Your task to perform on an android device: turn notification dots off Image 0: 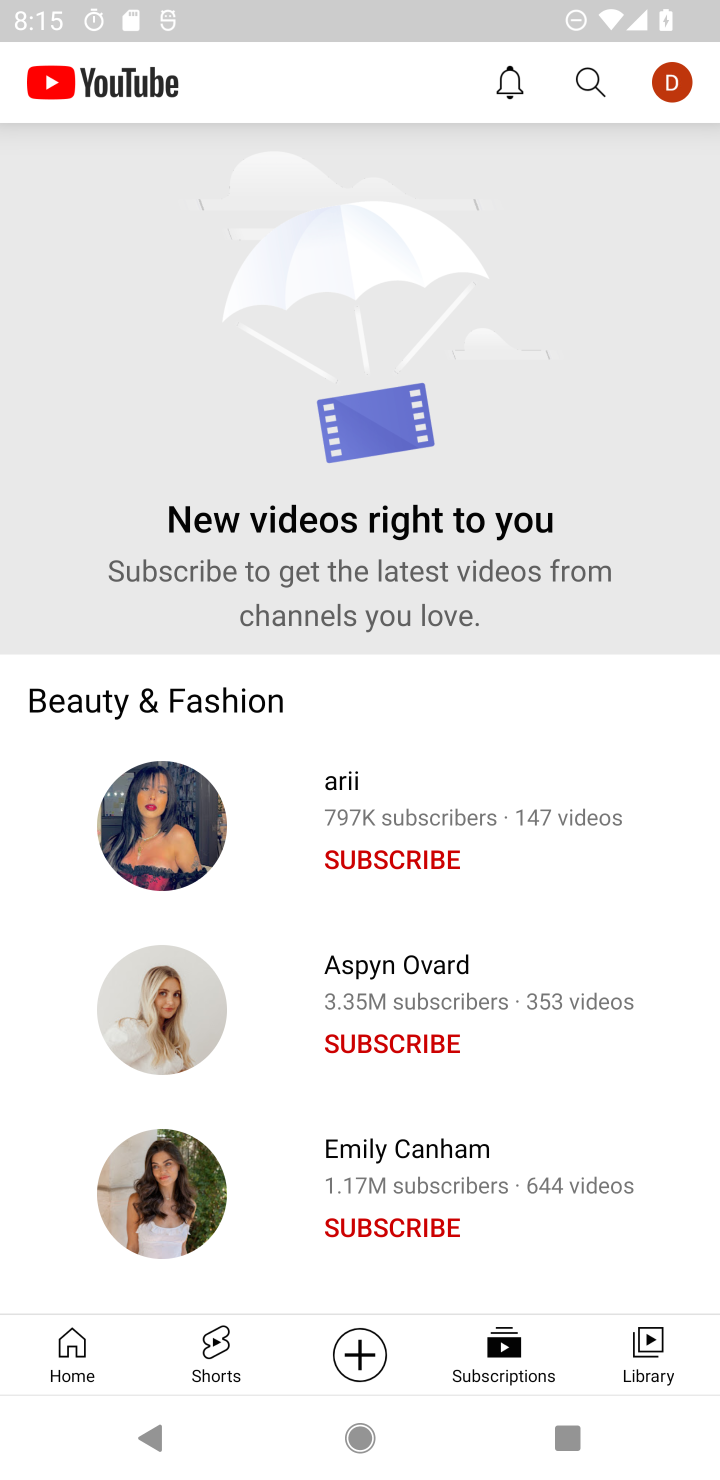
Step 0: press home button
Your task to perform on an android device: turn notification dots off Image 1: 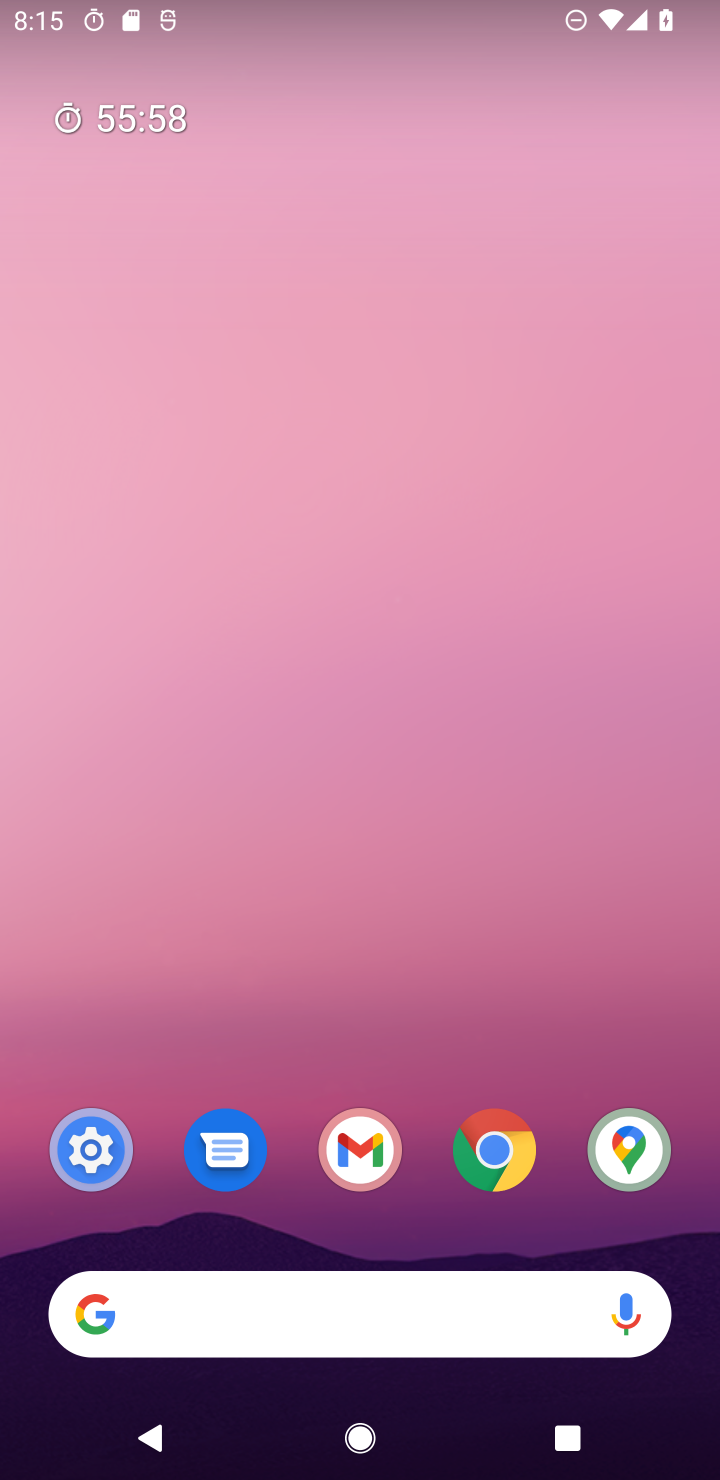
Step 1: drag from (430, 992) to (703, 11)
Your task to perform on an android device: turn notification dots off Image 2: 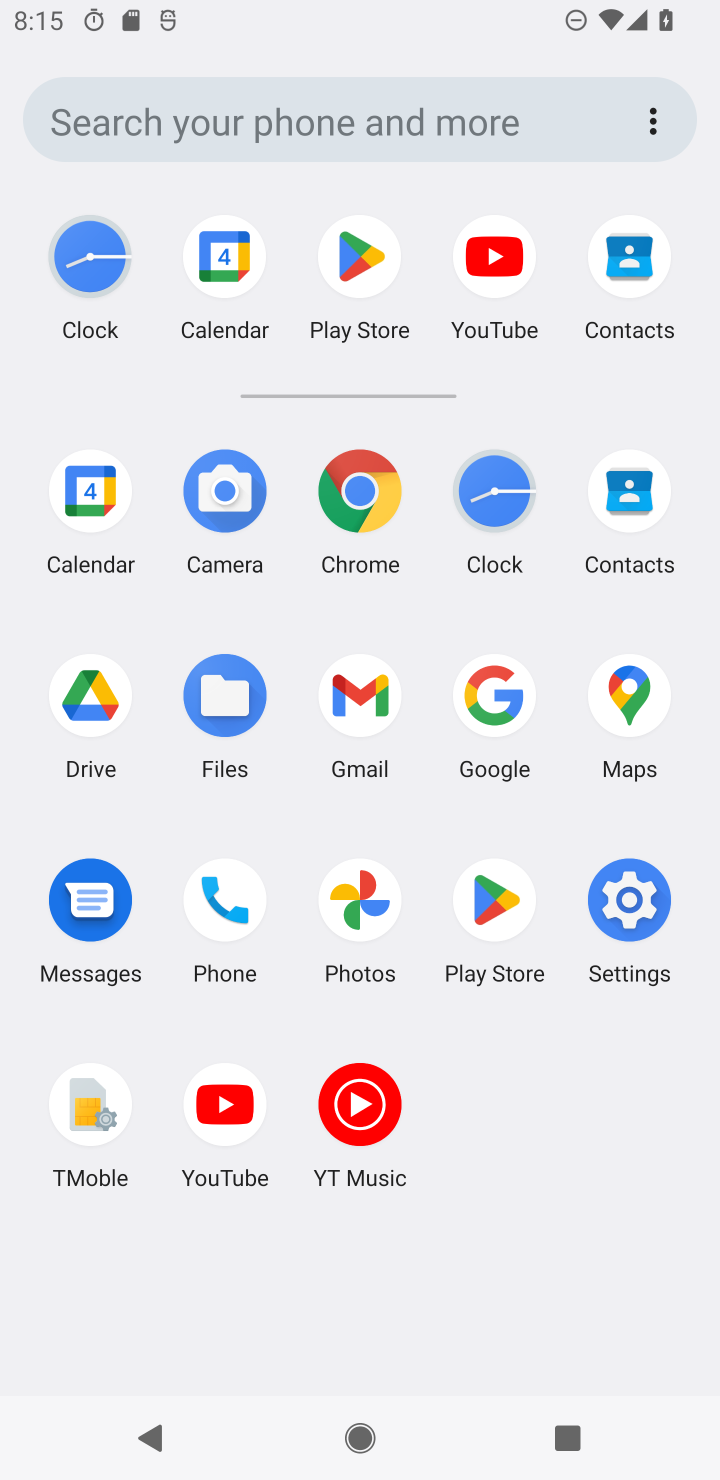
Step 2: click (637, 895)
Your task to perform on an android device: turn notification dots off Image 3: 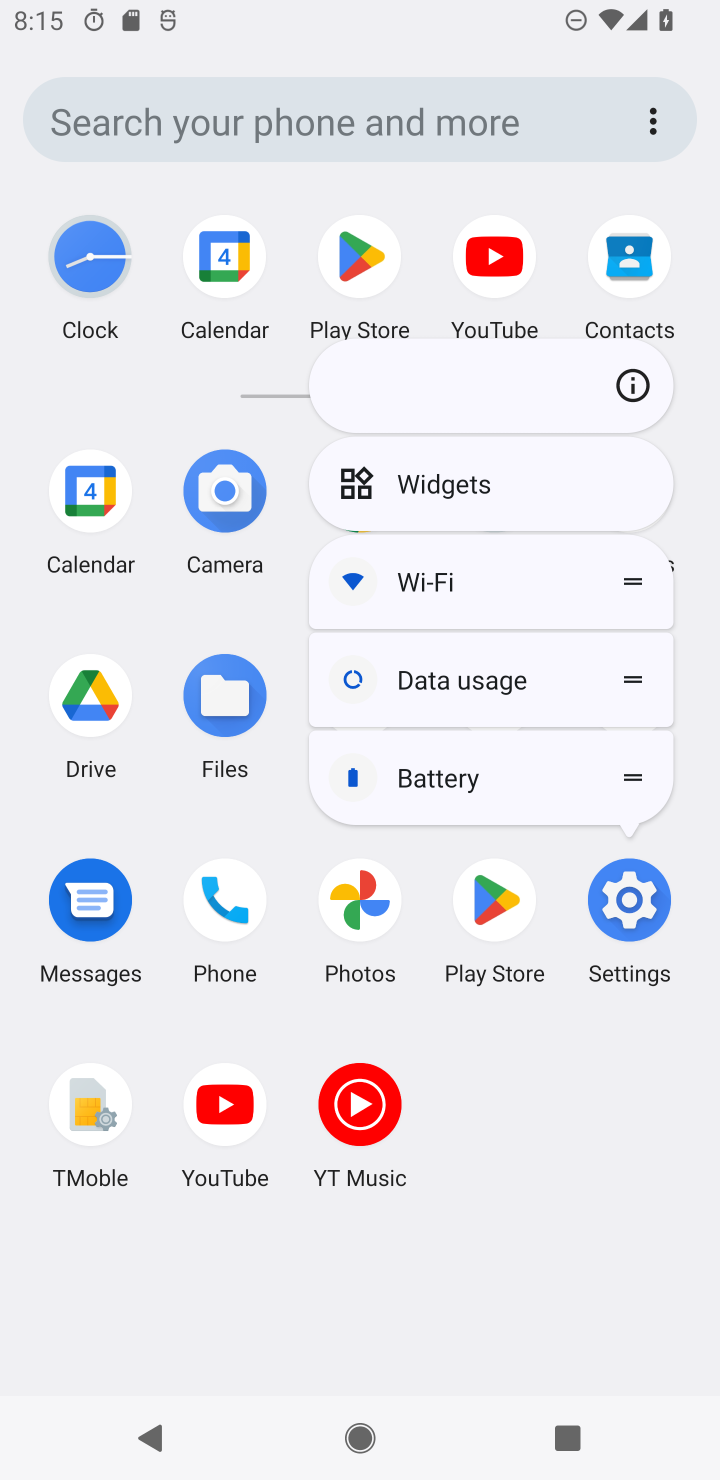
Step 3: click (637, 895)
Your task to perform on an android device: turn notification dots off Image 4: 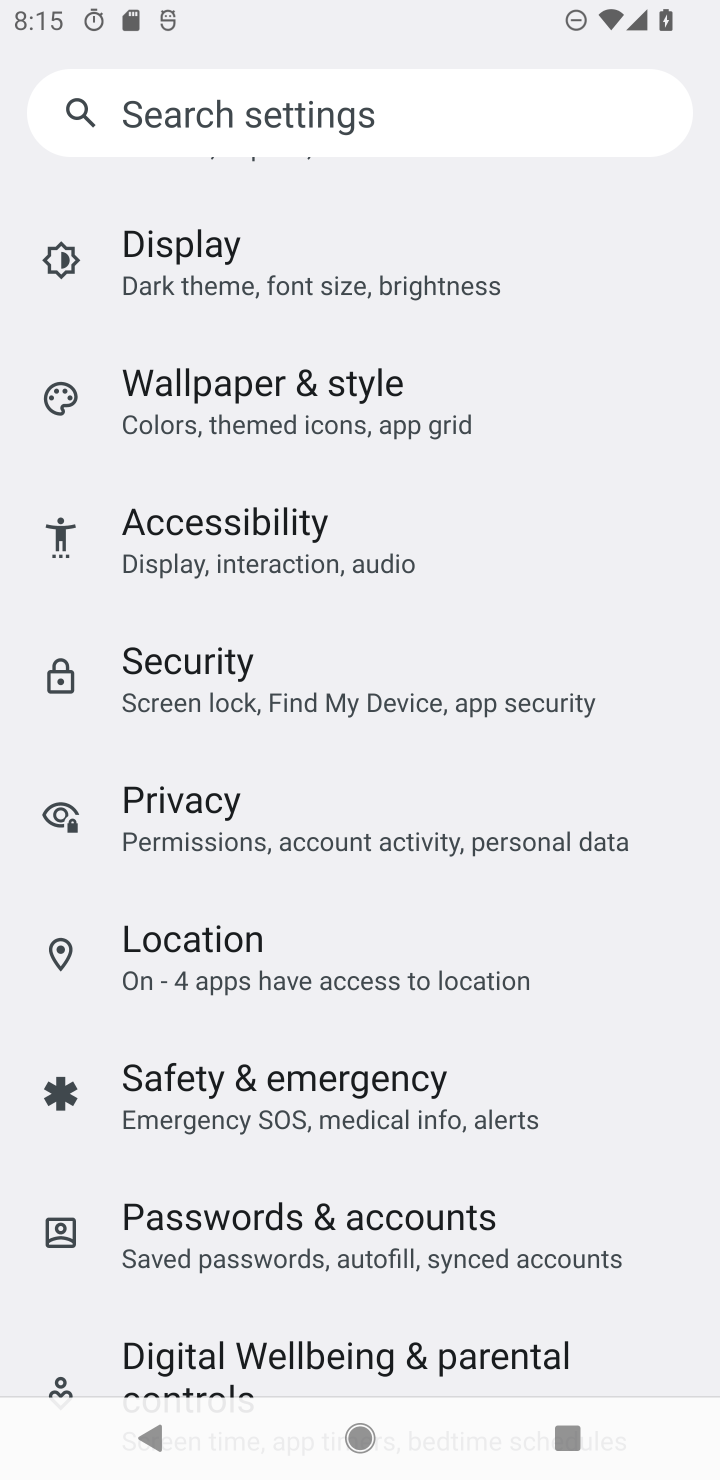
Step 4: drag from (341, 309) to (462, 1261)
Your task to perform on an android device: turn notification dots off Image 5: 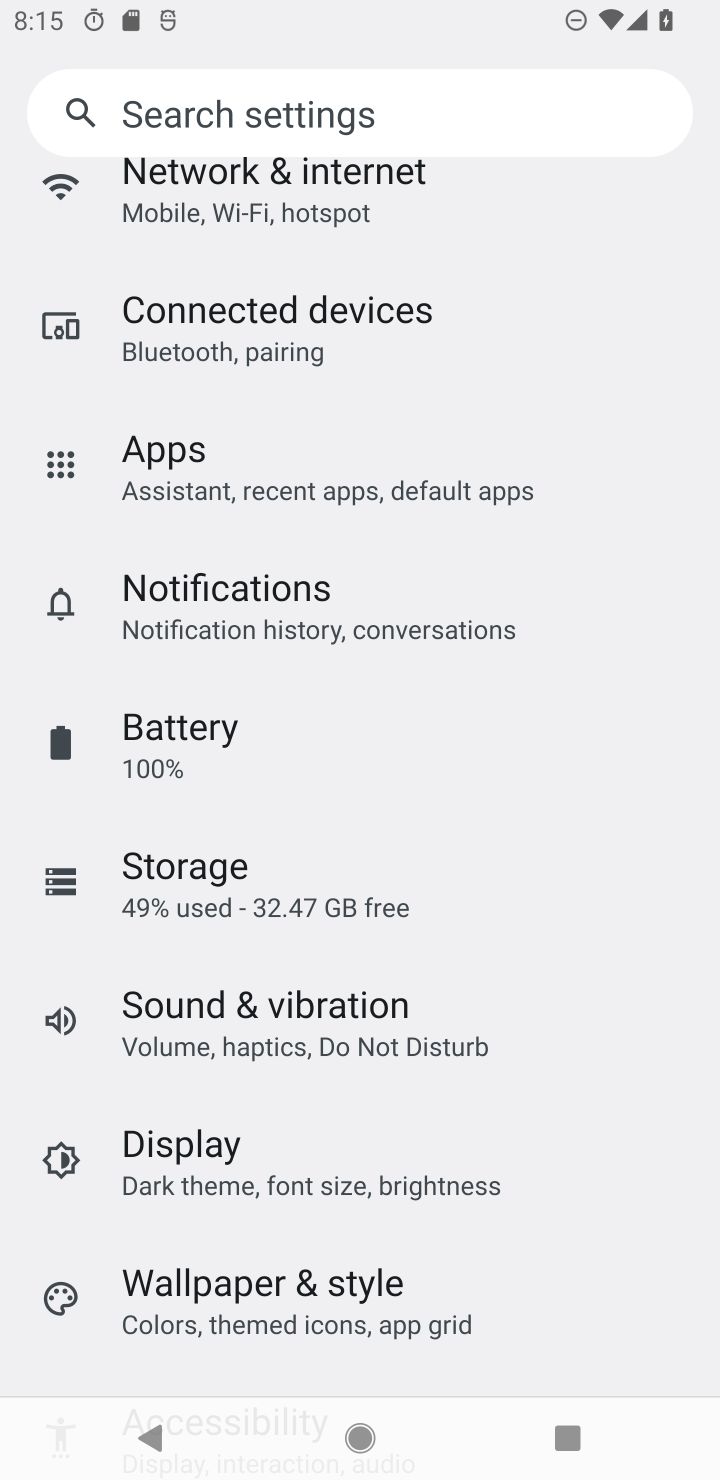
Step 5: click (283, 594)
Your task to perform on an android device: turn notification dots off Image 6: 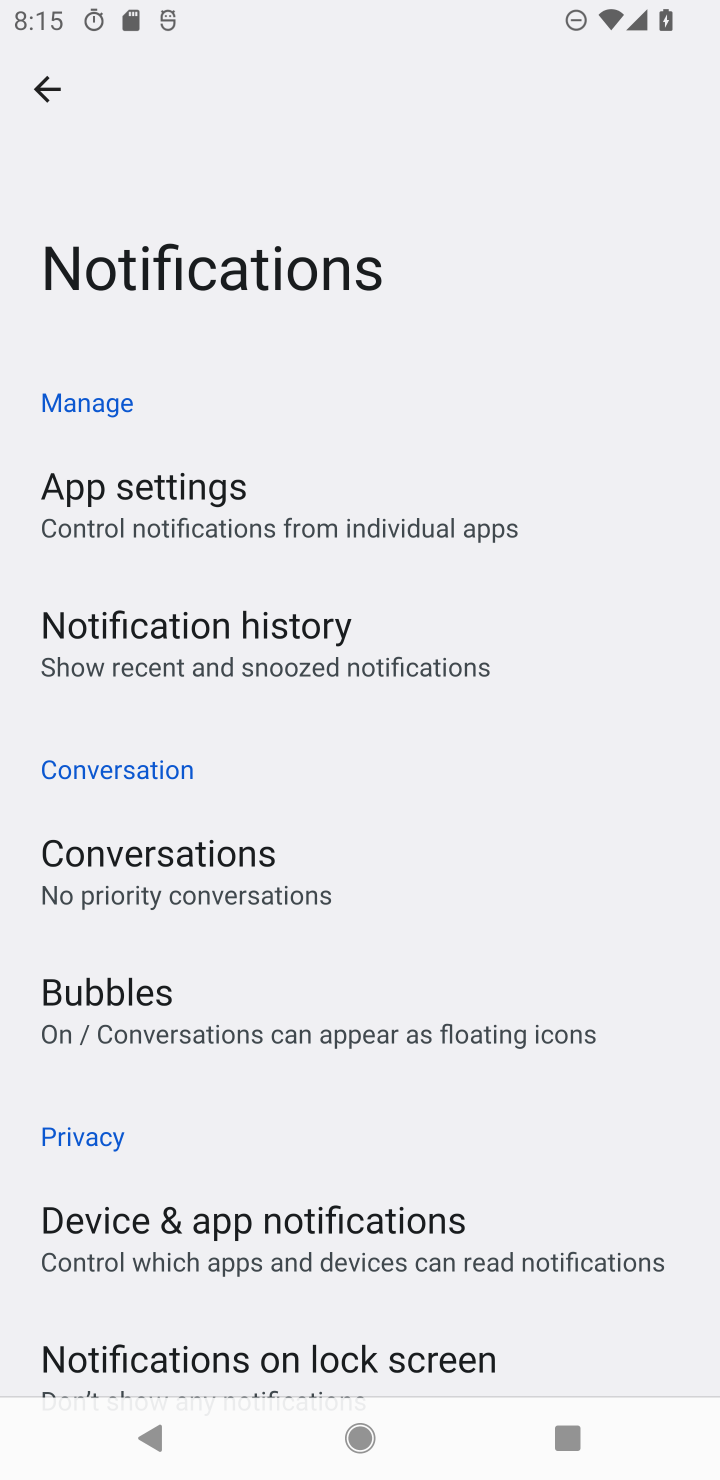
Step 6: task complete